Your task to perform on an android device: Search for pizza restaurants on Maps Image 0: 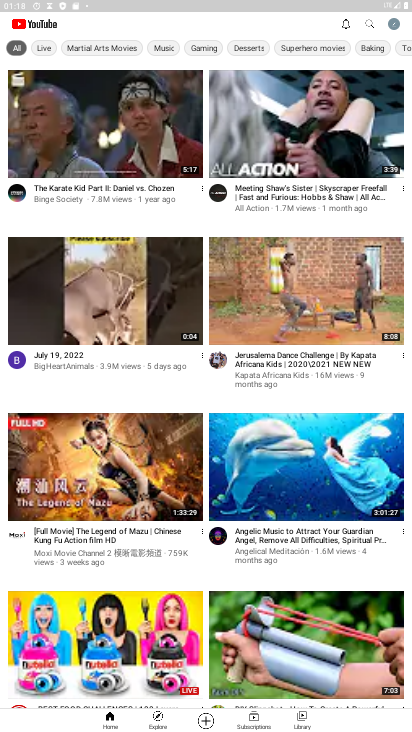
Step 0: press home button
Your task to perform on an android device: Search for pizza restaurants on Maps Image 1: 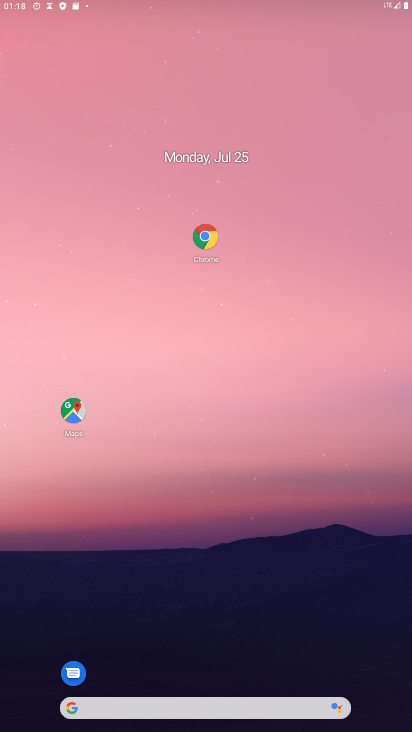
Step 1: drag from (264, 707) to (325, 30)
Your task to perform on an android device: Search for pizza restaurants on Maps Image 2: 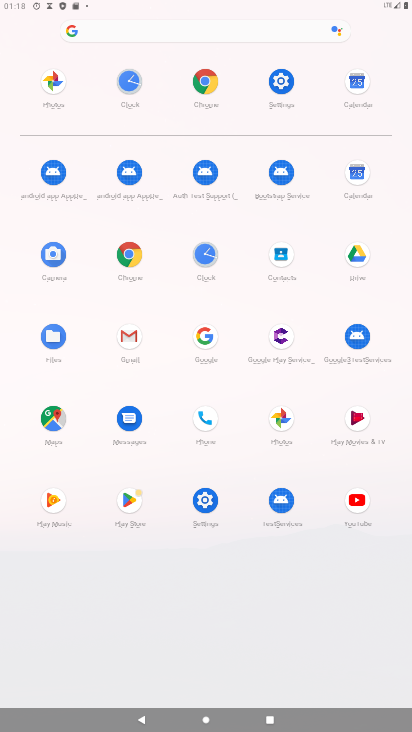
Step 2: click (51, 424)
Your task to perform on an android device: Search for pizza restaurants on Maps Image 3: 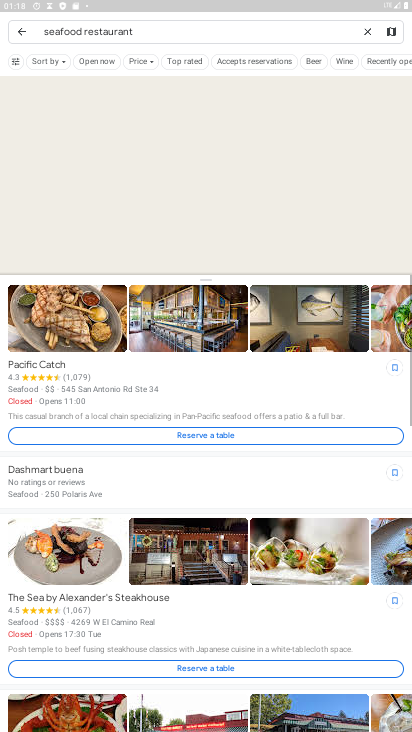
Step 3: click (366, 25)
Your task to perform on an android device: Search for pizza restaurants on Maps Image 4: 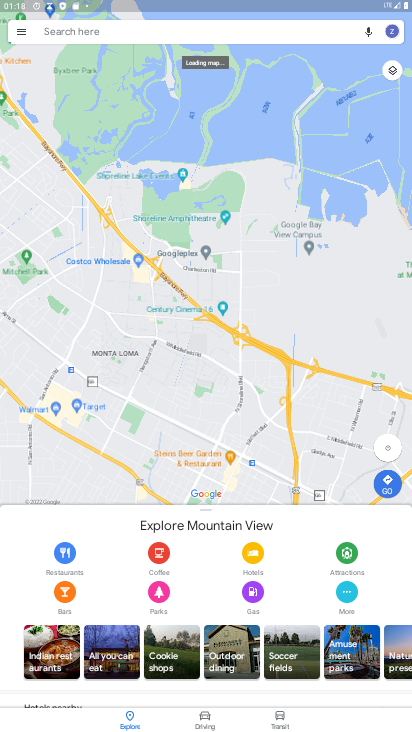
Step 4: click (81, 38)
Your task to perform on an android device: Search for pizza restaurants on Maps Image 5: 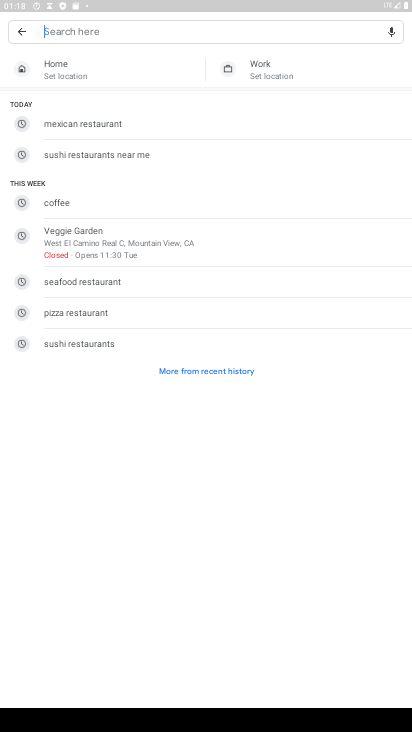
Step 5: click (98, 307)
Your task to perform on an android device: Search for pizza restaurants on Maps Image 6: 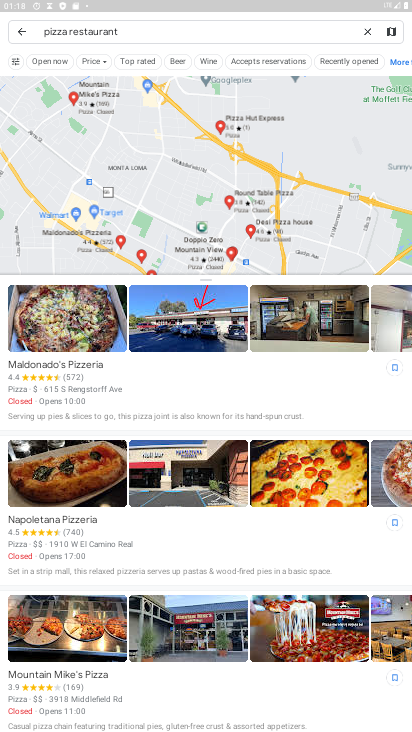
Step 6: task complete